Your task to perform on an android device: change the clock display to analog Image 0: 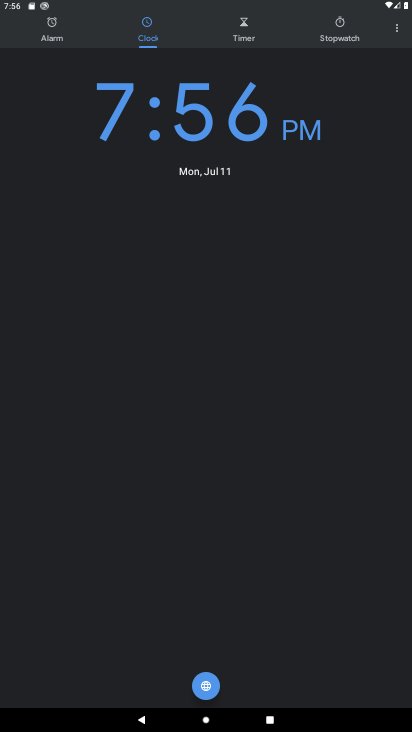
Step 0: press home button
Your task to perform on an android device: change the clock display to analog Image 1: 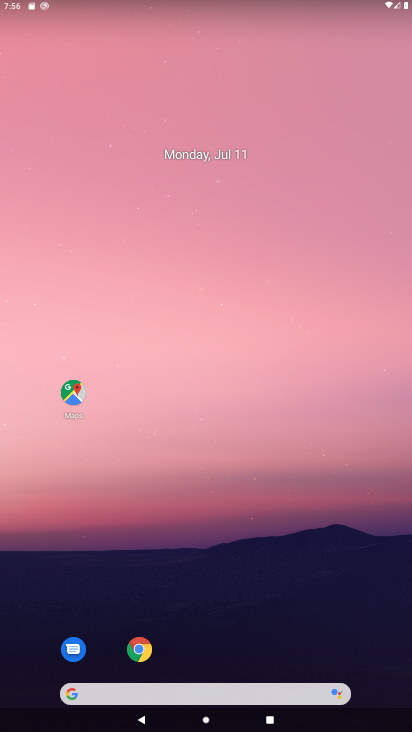
Step 1: drag from (252, 618) to (276, 3)
Your task to perform on an android device: change the clock display to analog Image 2: 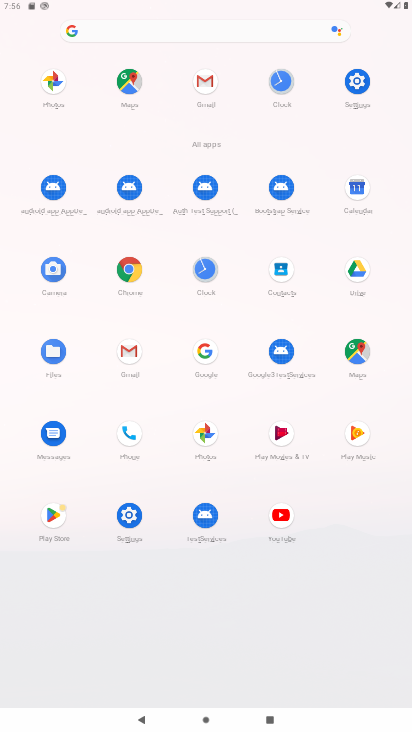
Step 2: click (204, 279)
Your task to perform on an android device: change the clock display to analog Image 3: 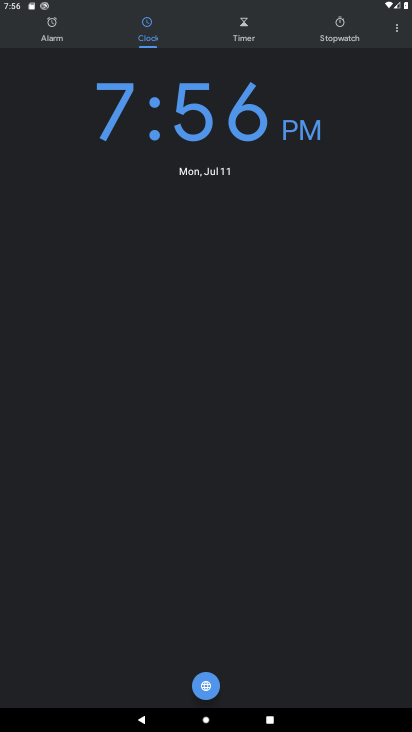
Step 3: click (399, 30)
Your task to perform on an android device: change the clock display to analog Image 4: 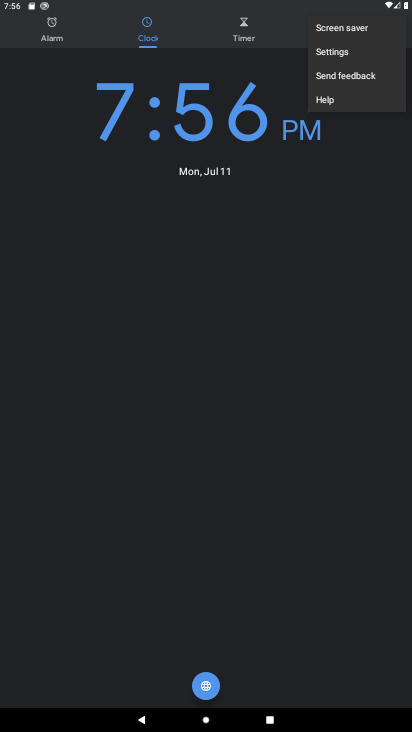
Step 4: click (350, 59)
Your task to perform on an android device: change the clock display to analog Image 5: 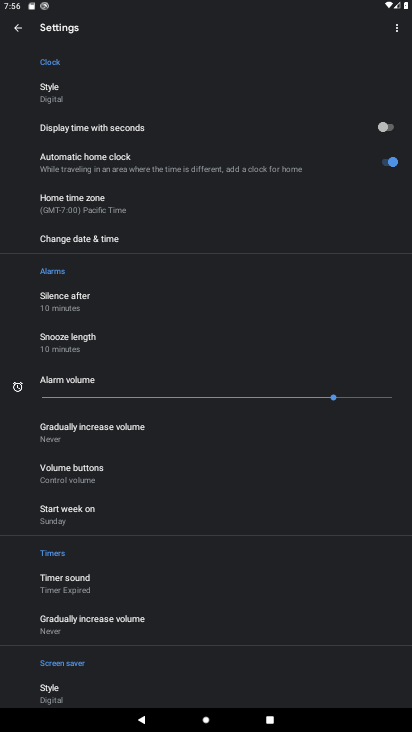
Step 5: click (60, 97)
Your task to perform on an android device: change the clock display to analog Image 6: 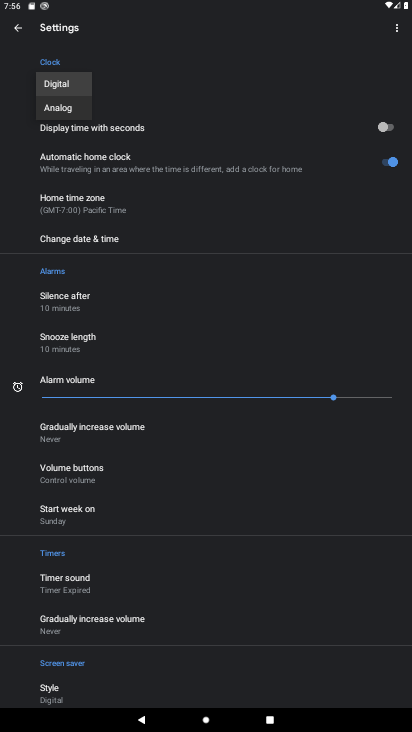
Step 6: click (71, 112)
Your task to perform on an android device: change the clock display to analog Image 7: 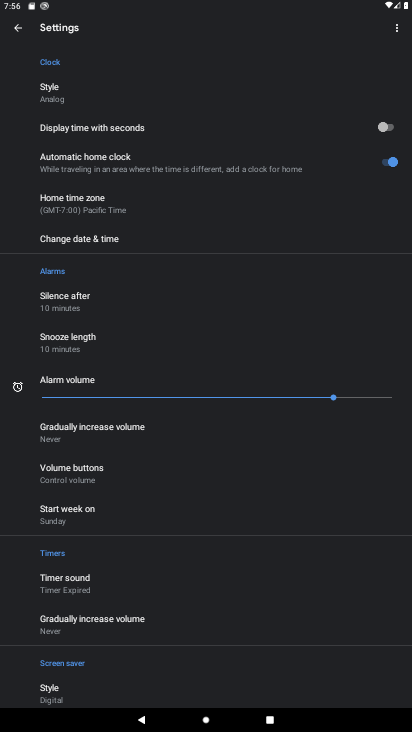
Step 7: task complete